Your task to perform on an android device: What's the weather going to be tomorrow? Image 0: 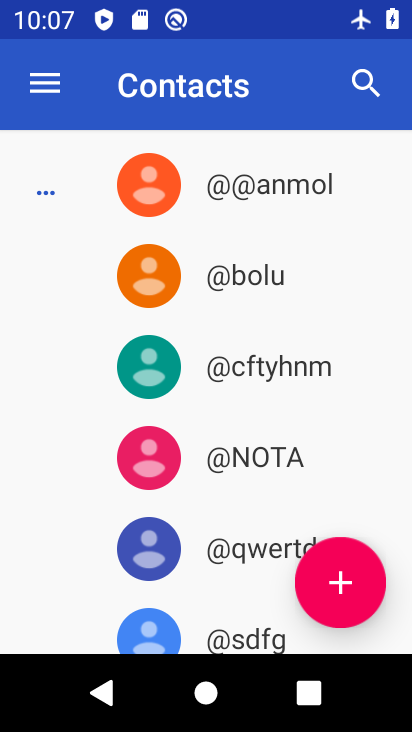
Step 0: press home button
Your task to perform on an android device: What's the weather going to be tomorrow? Image 1: 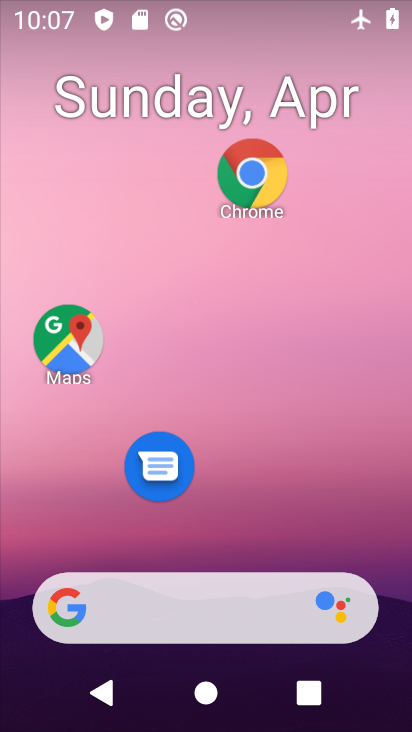
Step 1: drag from (294, 398) to (313, 3)
Your task to perform on an android device: What's the weather going to be tomorrow? Image 2: 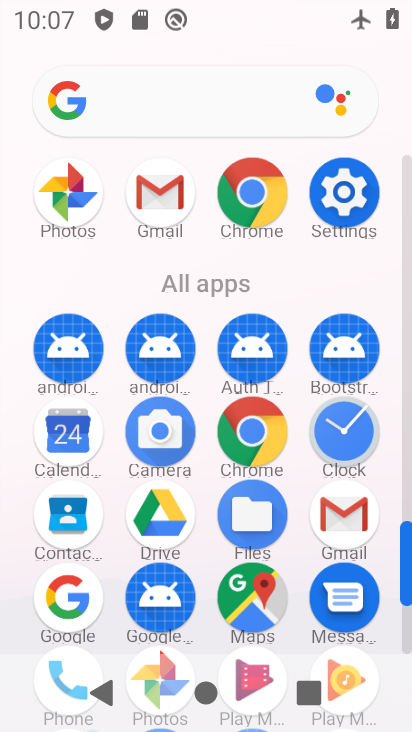
Step 2: click (53, 603)
Your task to perform on an android device: What's the weather going to be tomorrow? Image 3: 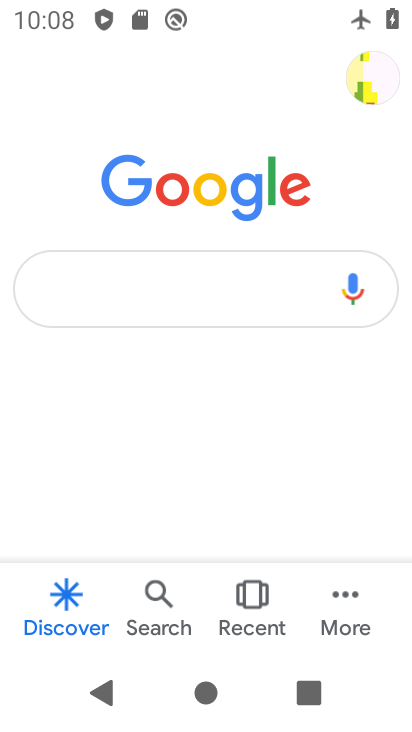
Step 3: task complete